Your task to perform on an android device: Go to calendar. Show me events next week Image 0: 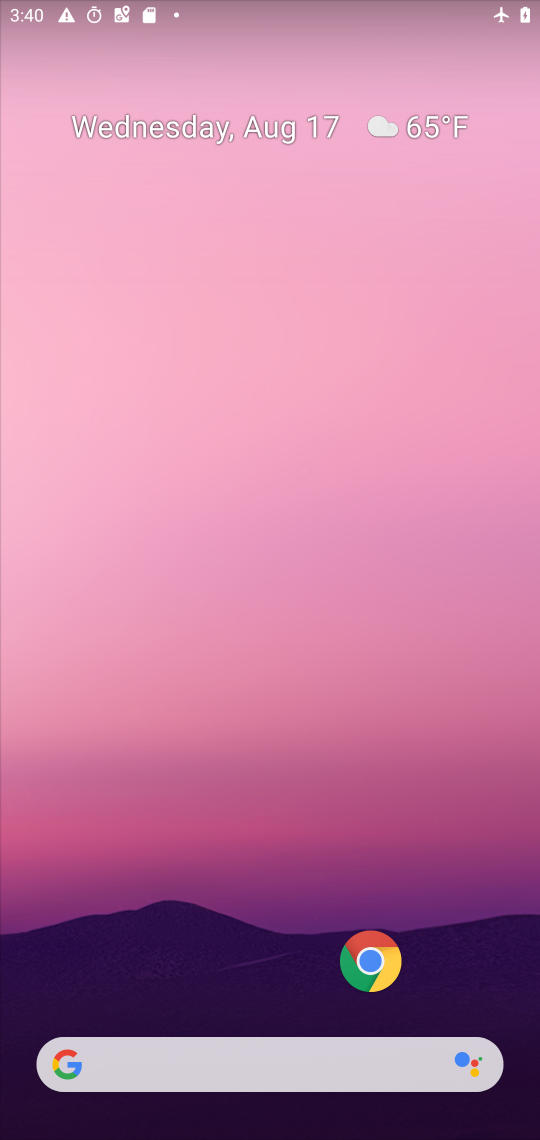
Step 0: drag from (290, 1120) to (236, 32)
Your task to perform on an android device: Go to calendar. Show me events next week Image 1: 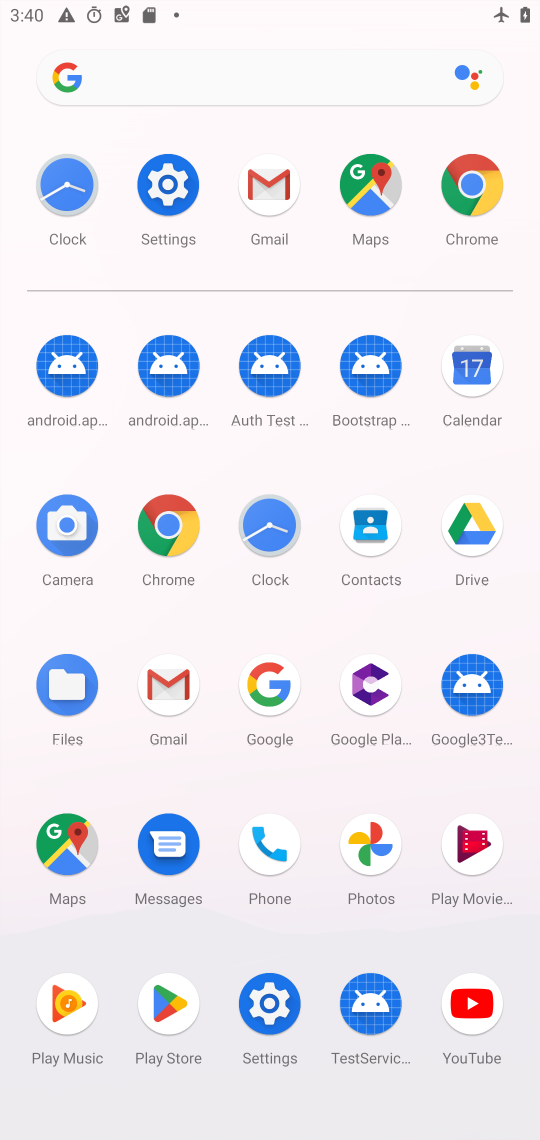
Step 1: click (480, 407)
Your task to perform on an android device: Go to calendar. Show me events next week Image 2: 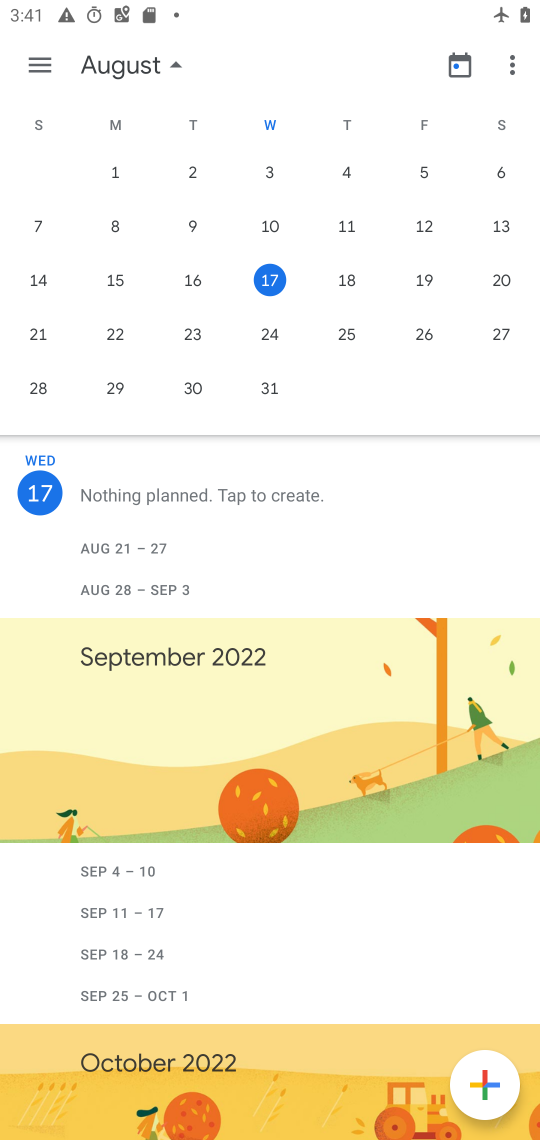
Step 2: click (47, 331)
Your task to perform on an android device: Go to calendar. Show me events next week Image 3: 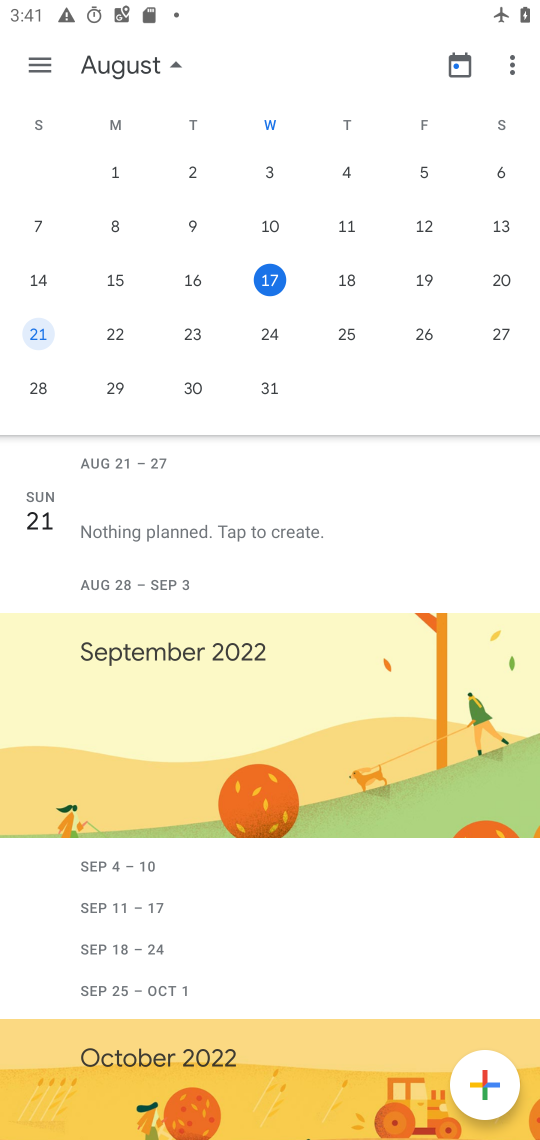
Step 3: task complete